Your task to perform on an android device: turn off notifications settings in the gmail app Image 0: 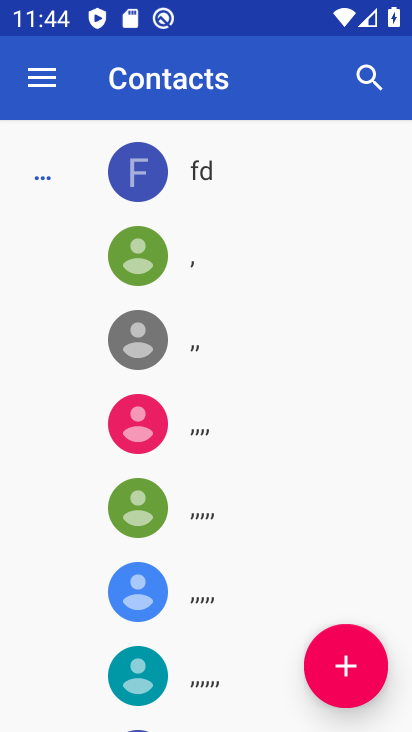
Step 0: press home button
Your task to perform on an android device: turn off notifications settings in the gmail app Image 1: 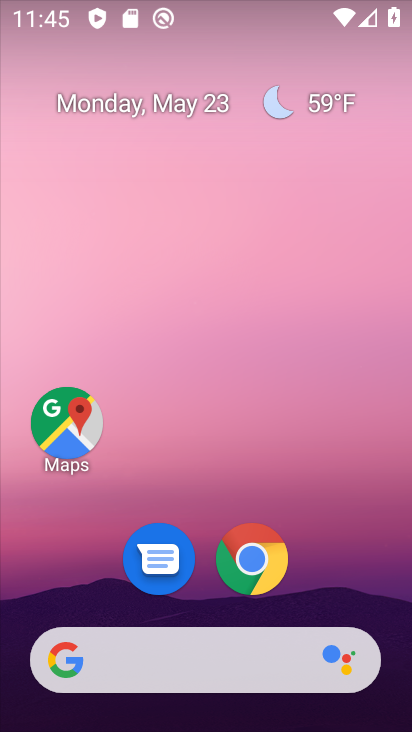
Step 1: drag from (390, 650) to (265, 14)
Your task to perform on an android device: turn off notifications settings in the gmail app Image 2: 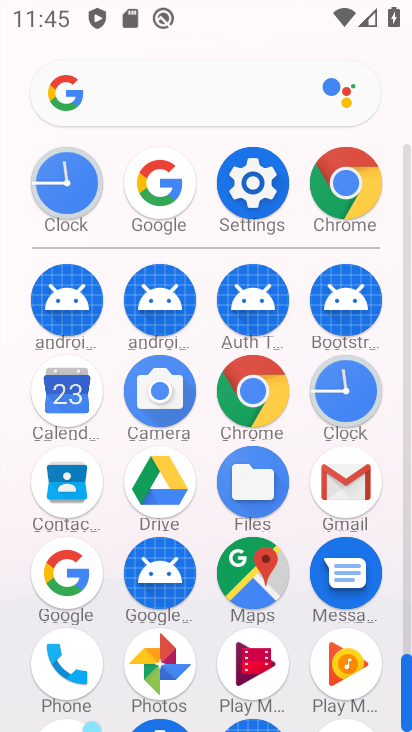
Step 2: click (368, 495)
Your task to perform on an android device: turn off notifications settings in the gmail app Image 3: 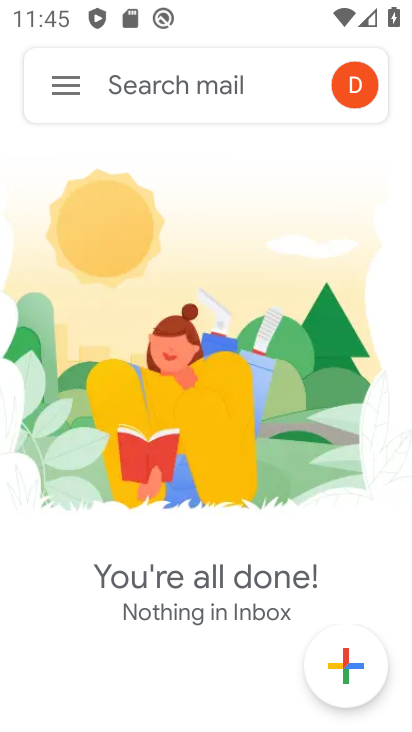
Step 3: click (58, 72)
Your task to perform on an android device: turn off notifications settings in the gmail app Image 4: 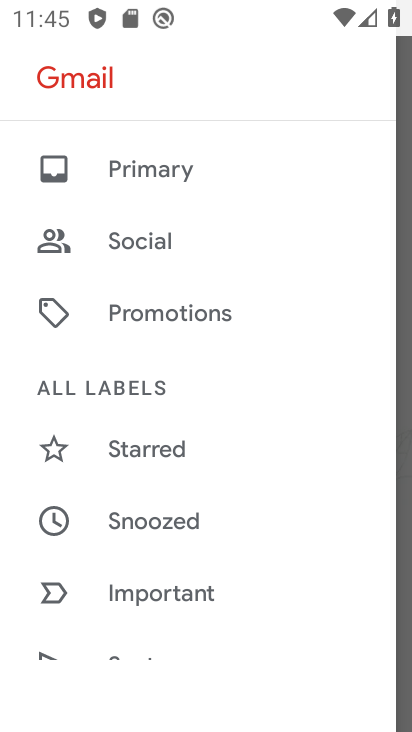
Step 4: drag from (162, 618) to (197, 108)
Your task to perform on an android device: turn off notifications settings in the gmail app Image 5: 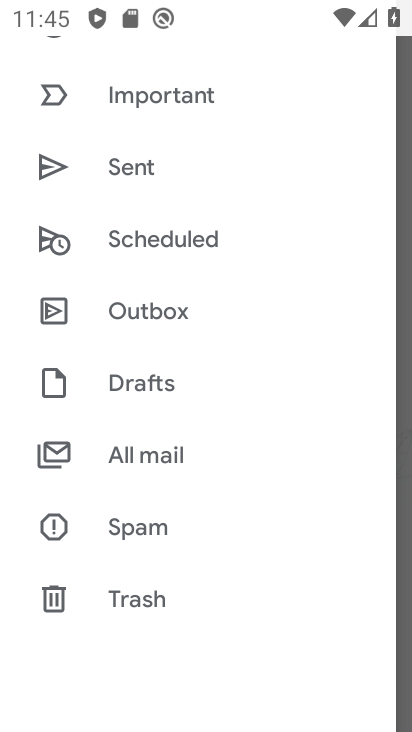
Step 5: drag from (202, 563) to (220, 85)
Your task to perform on an android device: turn off notifications settings in the gmail app Image 6: 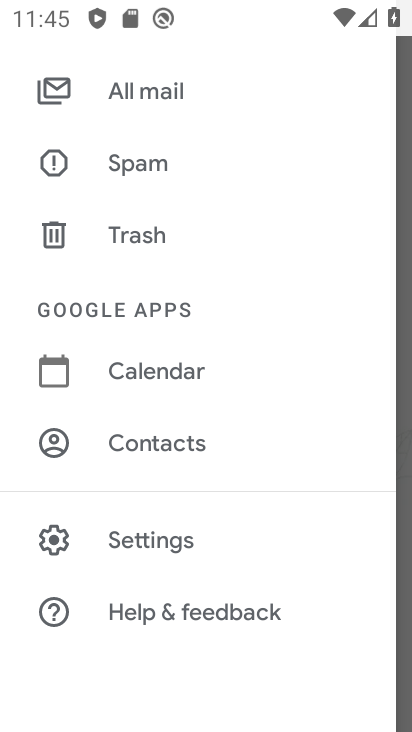
Step 6: click (208, 545)
Your task to perform on an android device: turn off notifications settings in the gmail app Image 7: 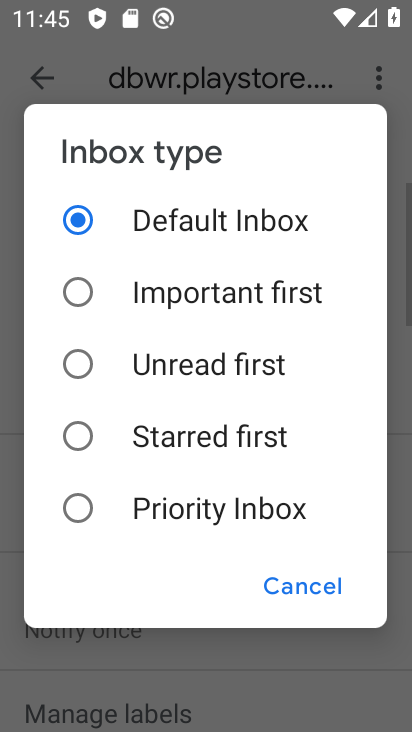
Step 7: click (308, 573)
Your task to perform on an android device: turn off notifications settings in the gmail app Image 8: 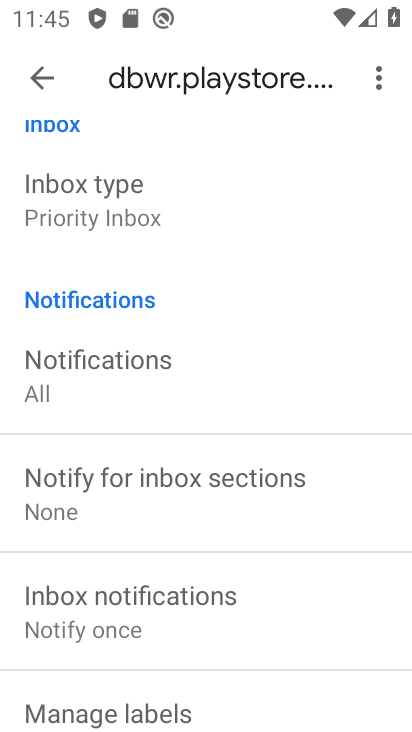
Step 8: click (161, 381)
Your task to perform on an android device: turn off notifications settings in the gmail app Image 9: 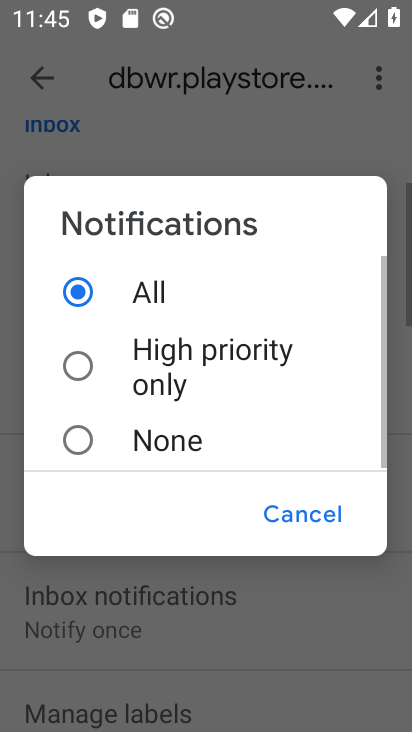
Step 9: click (94, 449)
Your task to perform on an android device: turn off notifications settings in the gmail app Image 10: 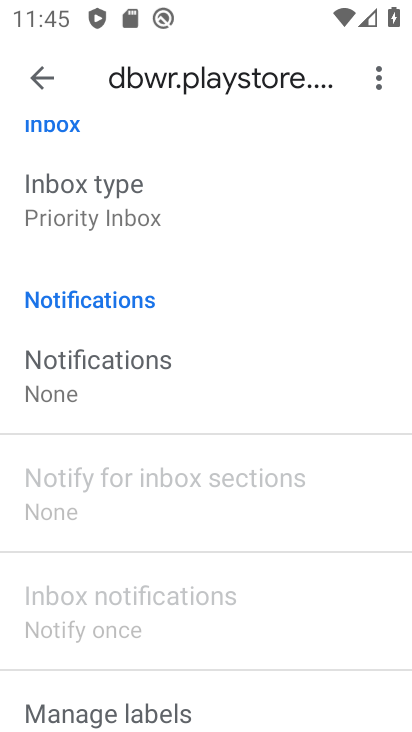
Step 10: task complete